Your task to perform on an android device: turn on airplane mode Image 0: 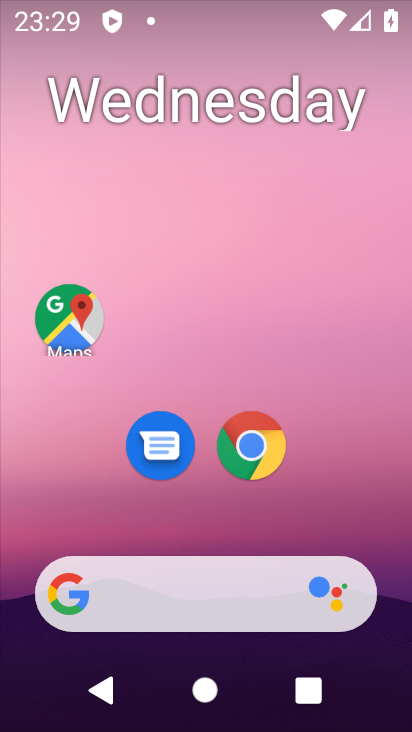
Step 0: drag from (301, 40) to (295, 493)
Your task to perform on an android device: turn on airplane mode Image 1: 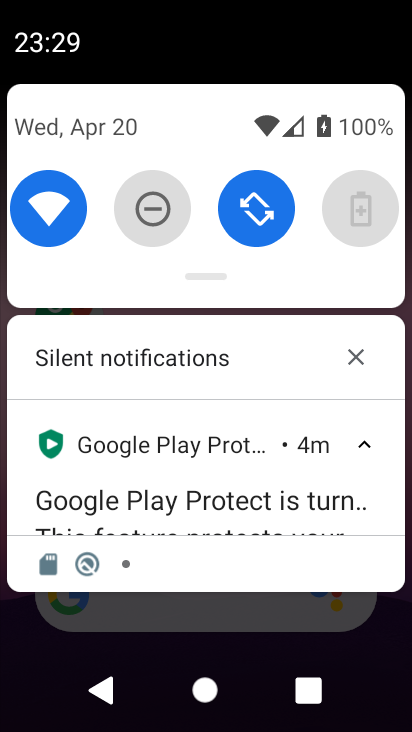
Step 1: drag from (205, 233) to (211, 660)
Your task to perform on an android device: turn on airplane mode Image 2: 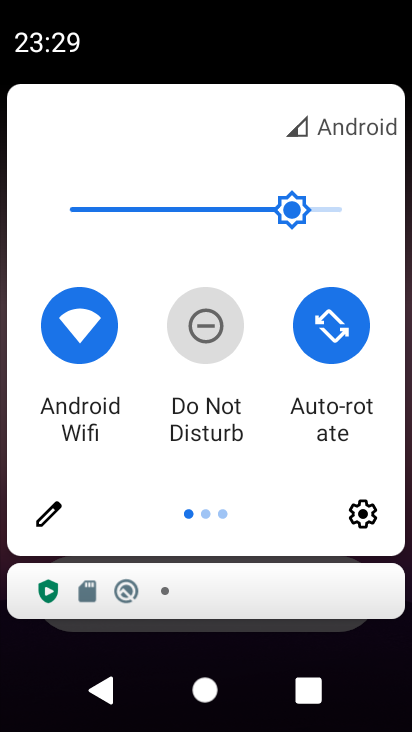
Step 2: drag from (342, 334) to (28, 322)
Your task to perform on an android device: turn on airplane mode Image 3: 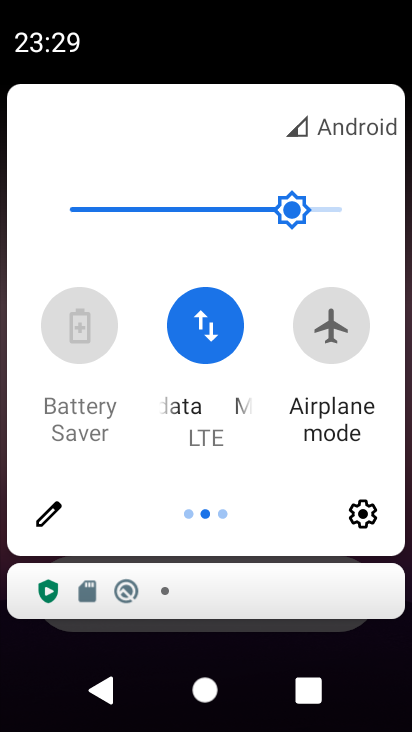
Step 3: click (330, 325)
Your task to perform on an android device: turn on airplane mode Image 4: 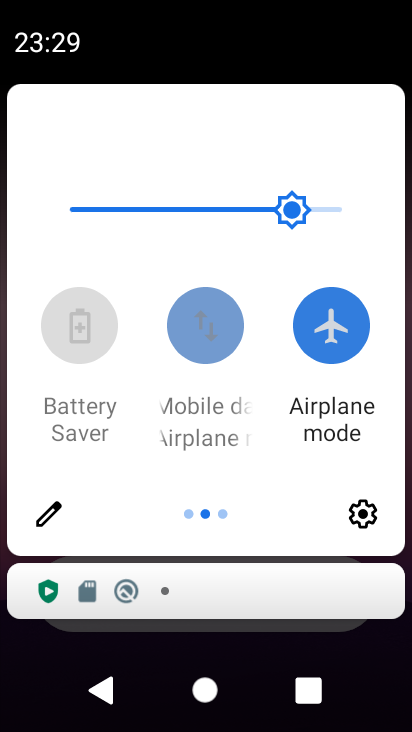
Step 4: task complete